Your task to perform on an android device: Find coffee shops on Maps Image 0: 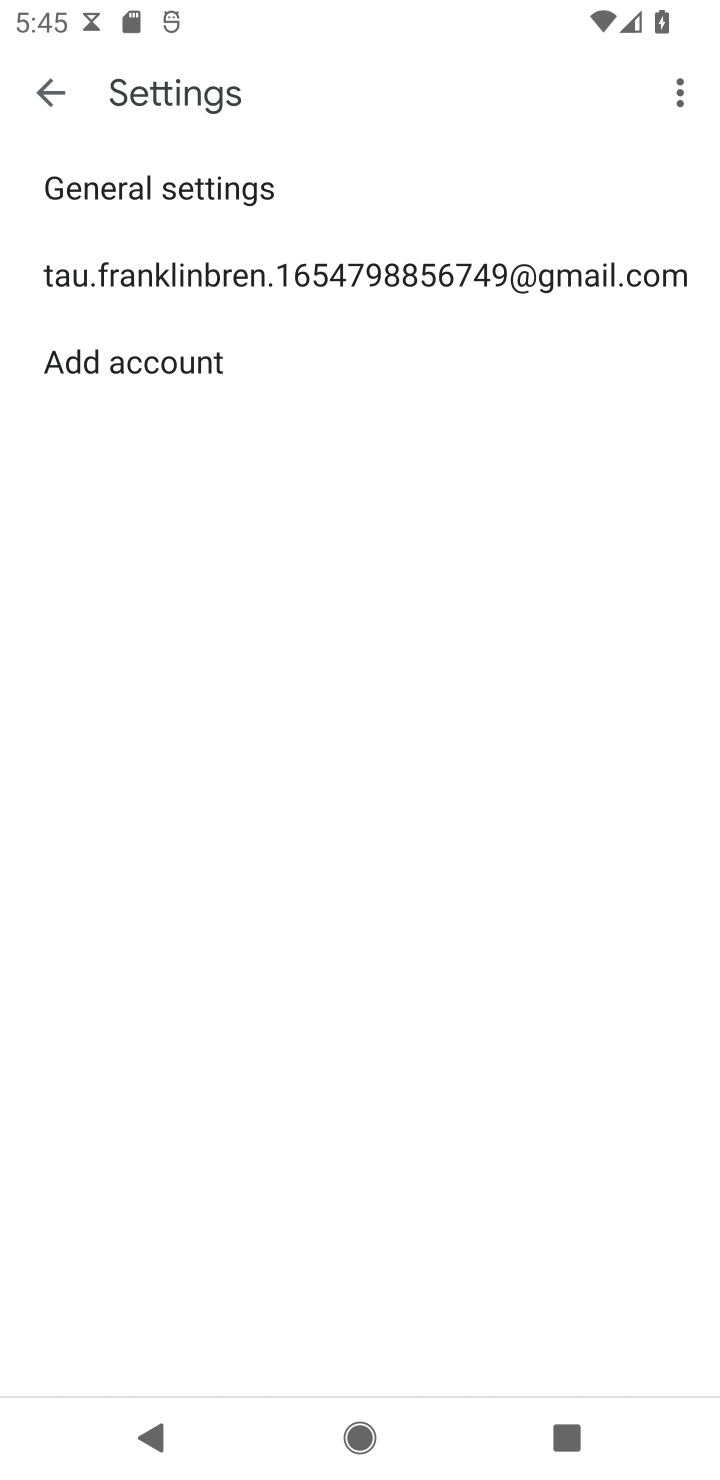
Step 0: press home button
Your task to perform on an android device: Find coffee shops on Maps Image 1: 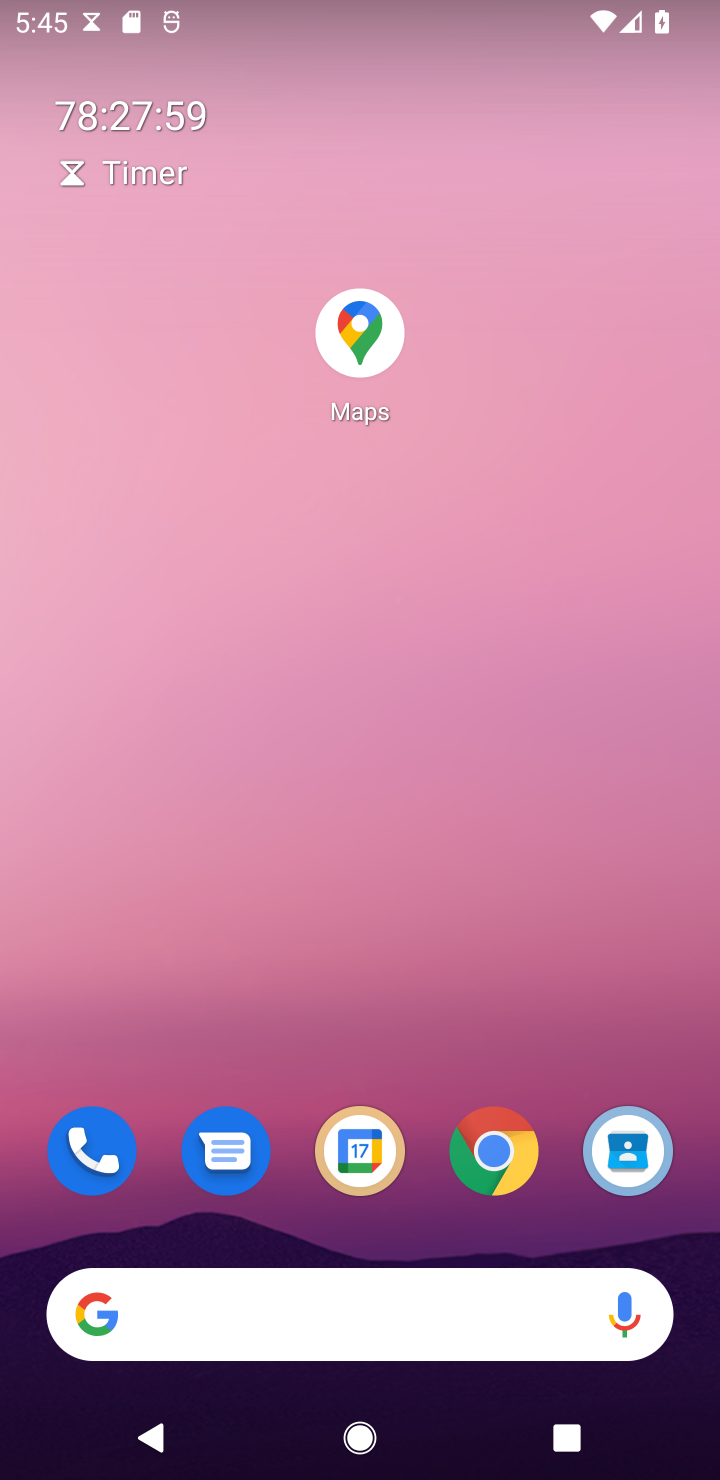
Step 1: drag from (318, 1143) to (393, 397)
Your task to perform on an android device: Find coffee shops on Maps Image 2: 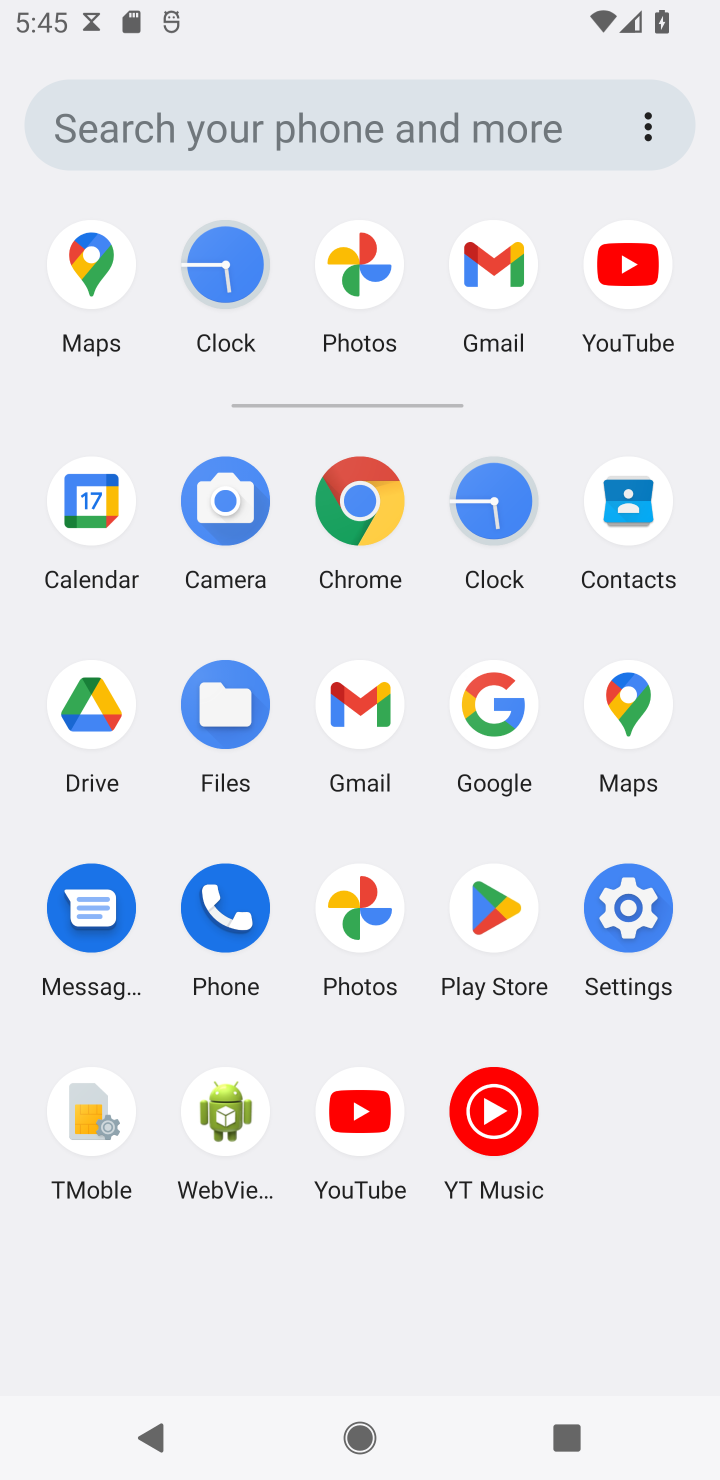
Step 2: click (619, 715)
Your task to perform on an android device: Find coffee shops on Maps Image 3: 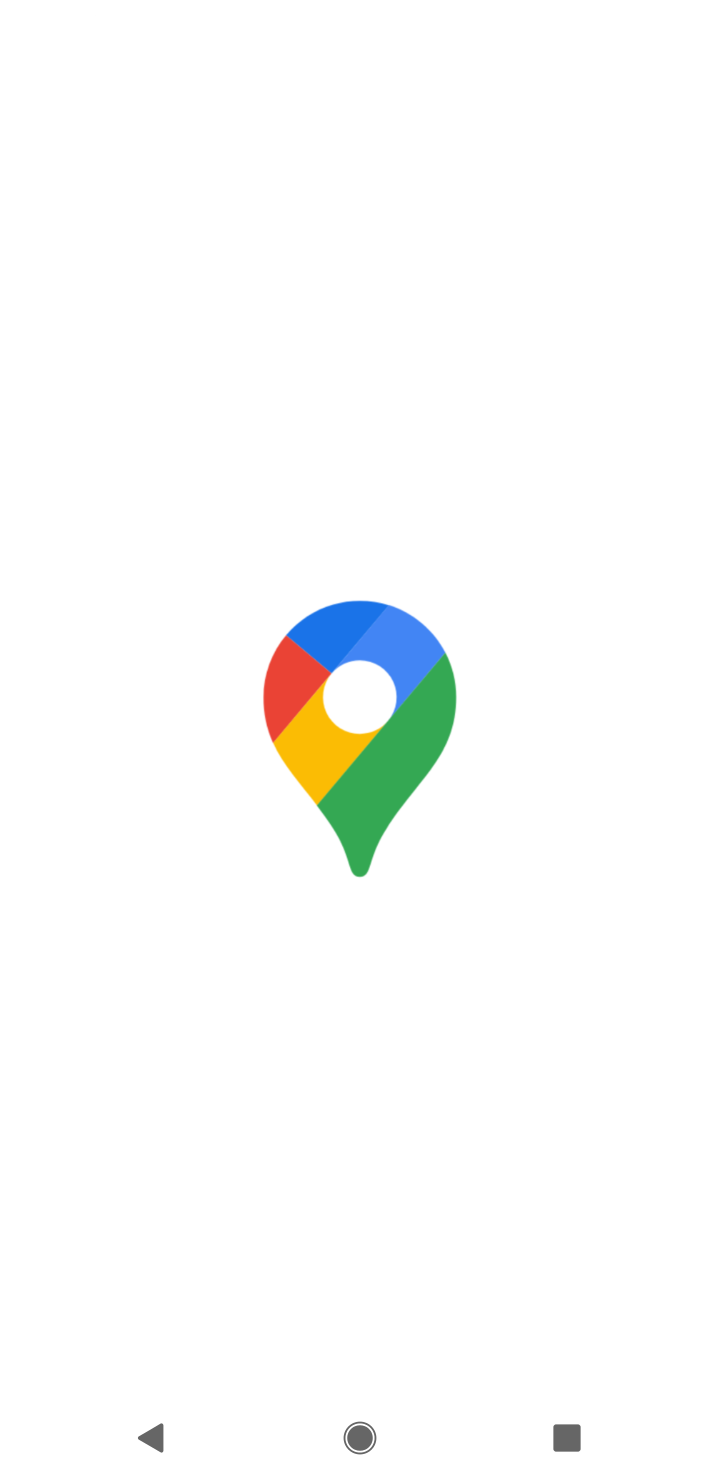
Step 3: task complete